Your task to perform on an android device: What's on my calendar tomorrow? Image 0: 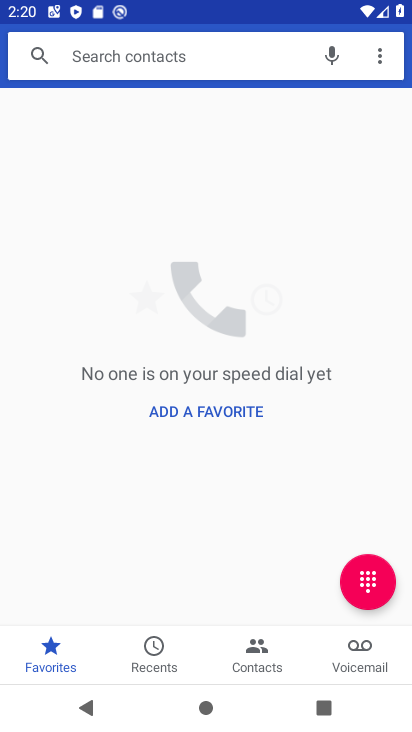
Step 0: press home button
Your task to perform on an android device: What's on my calendar tomorrow? Image 1: 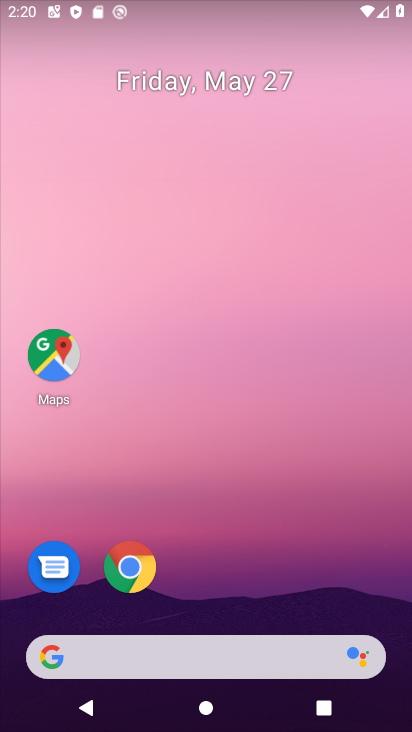
Step 1: drag from (191, 610) to (227, 88)
Your task to perform on an android device: What's on my calendar tomorrow? Image 2: 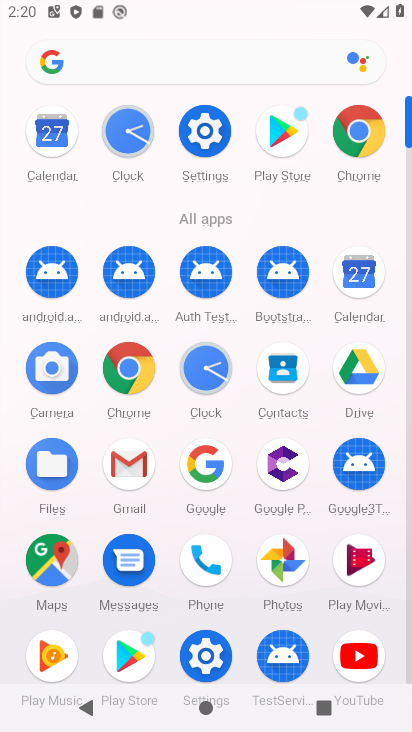
Step 2: click (48, 135)
Your task to perform on an android device: What's on my calendar tomorrow? Image 3: 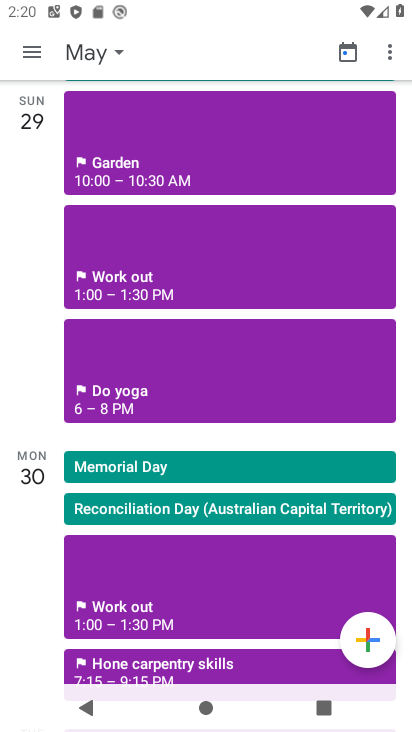
Step 3: drag from (260, 614) to (278, 350)
Your task to perform on an android device: What's on my calendar tomorrow? Image 4: 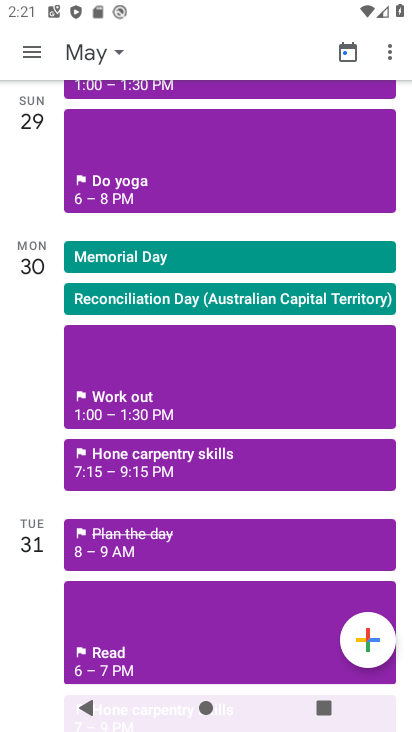
Step 4: click (370, 647)
Your task to perform on an android device: What's on my calendar tomorrow? Image 5: 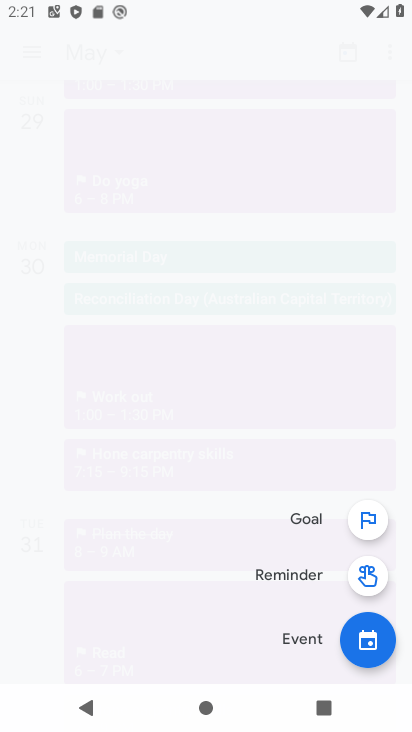
Step 5: click (391, 466)
Your task to perform on an android device: What's on my calendar tomorrow? Image 6: 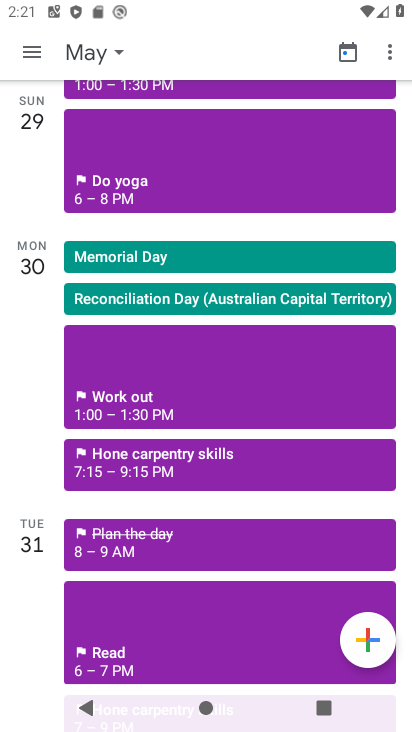
Step 6: task complete